Your task to perform on an android device: Go to location settings Image 0: 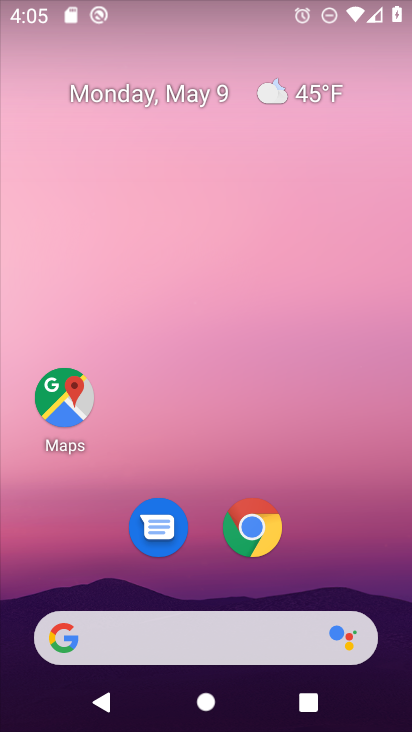
Step 0: drag from (373, 586) to (214, 193)
Your task to perform on an android device: Go to location settings Image 1: 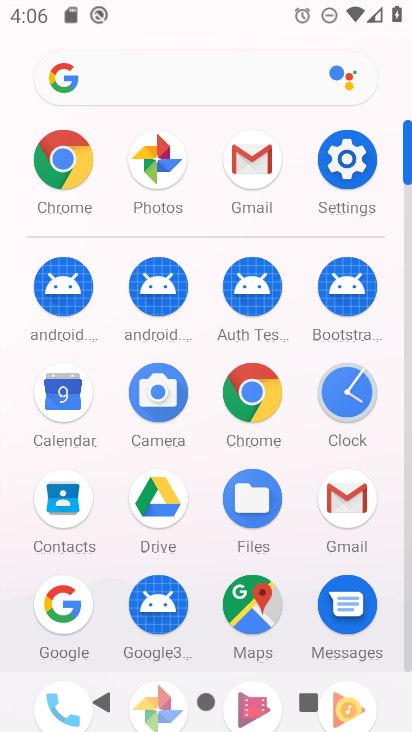
Step 1: click (368, 162)
Your task to perform on an android device: Go to location settings Image 2: 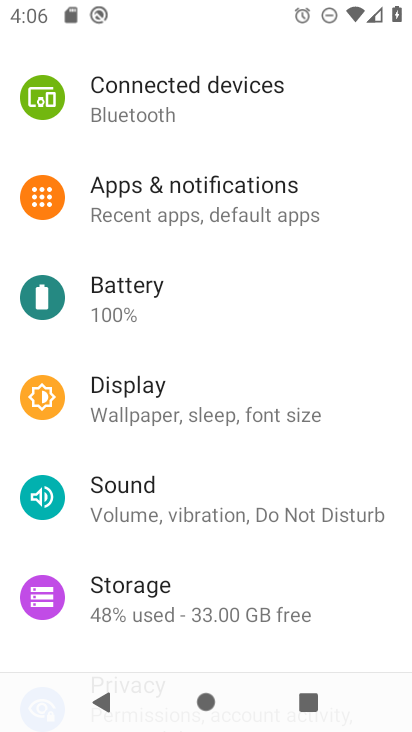
Step 2: drag from (291, 551) to (257, 182)
Your task to perform on an android device: Go to location settings Image 3: 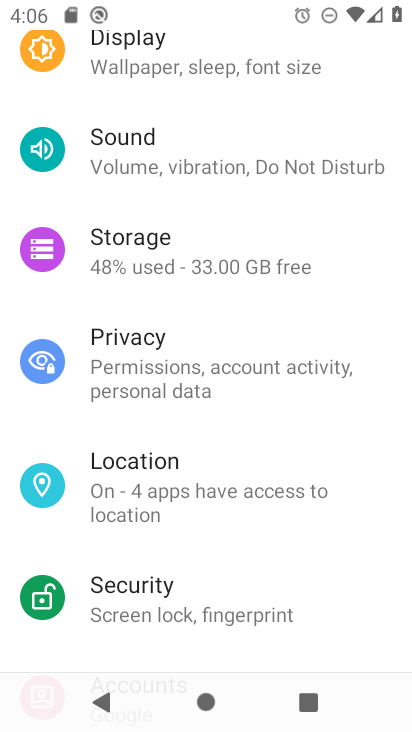
Step 3: click (243, 492)
Your task to perform on an android device: Go to location settings Image 4: 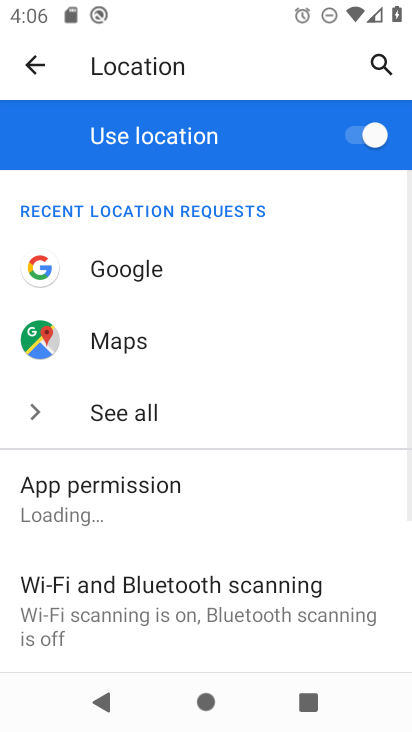
Step 4: task complete